Your task to perform on an android device: Go to internet settings Image 0: 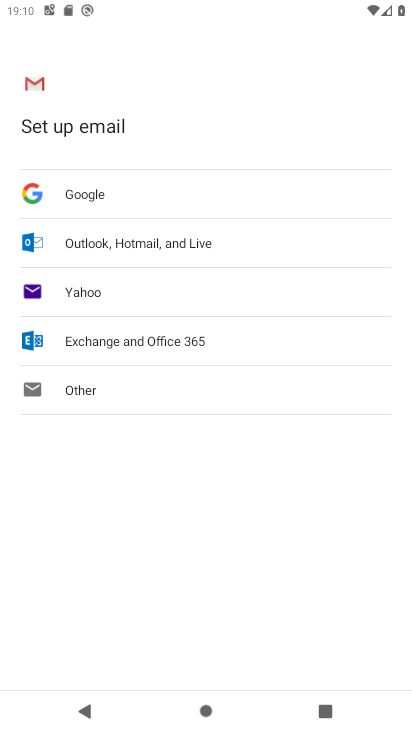
Step 0: press home button
Your task to perform on an android device: Go to internet settings Image 1: 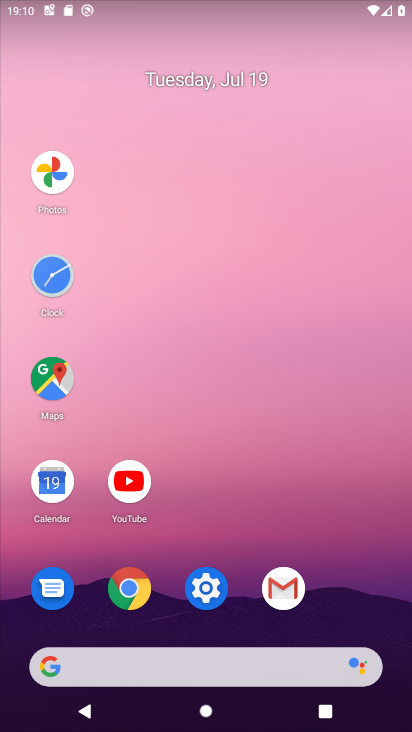
Step 1: click (207, 587)
Your task to perform on an android device: Go to internet settings Image 2: 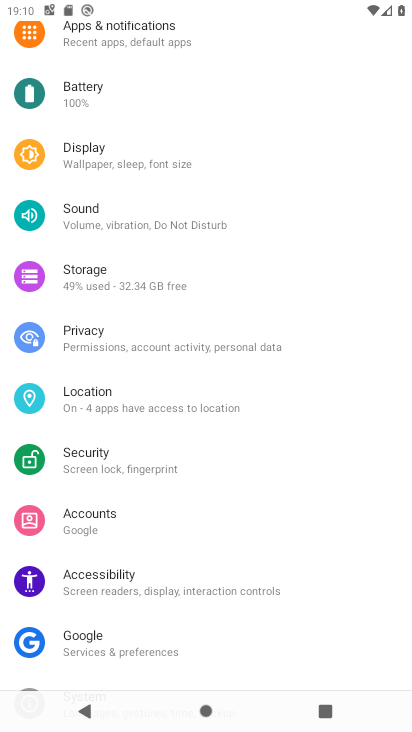
Step 2: drag from (263, 143) to (282, 480)
Your task to perform on an android device: Go to internet settings Image 3: 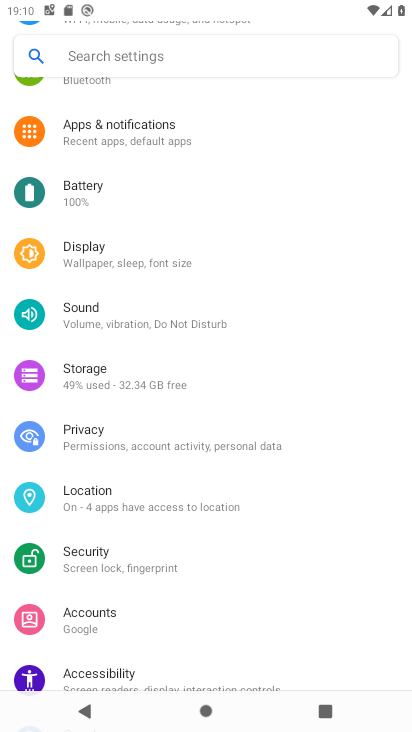
Step 3: drag from (238, 189) to (236, 653)
Your task to perform on an android device: Go to internet settings Image 4: 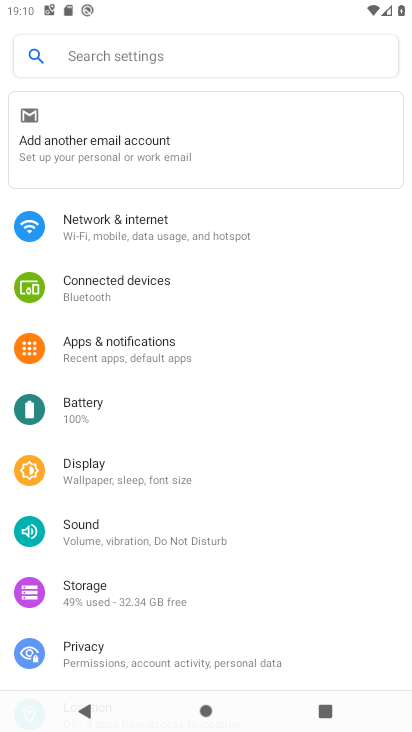
Step 4: click (115, 213)
Your task to perform on an android device: Go to internet settings Image 5: 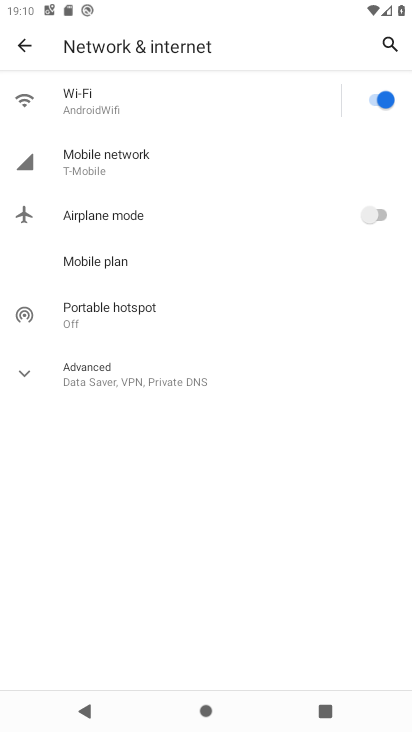
Step 5: click (89, 147)
Your task to perform on an android device: Go to internet settings Image 6: 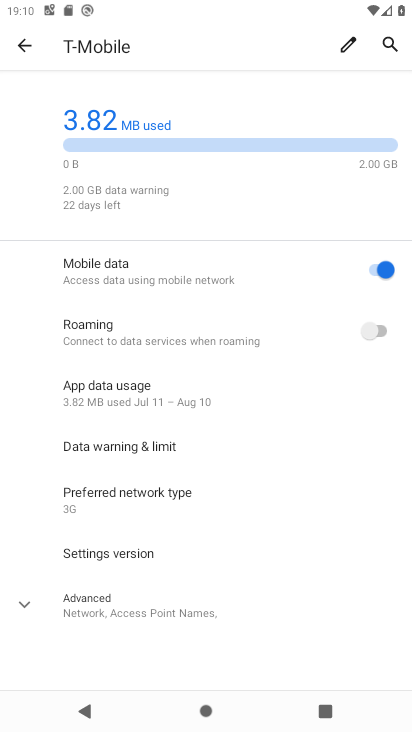
Step 6: task complete